Your task to perform on an android device: Search for vegetarian restaurants on Maps Image 0: 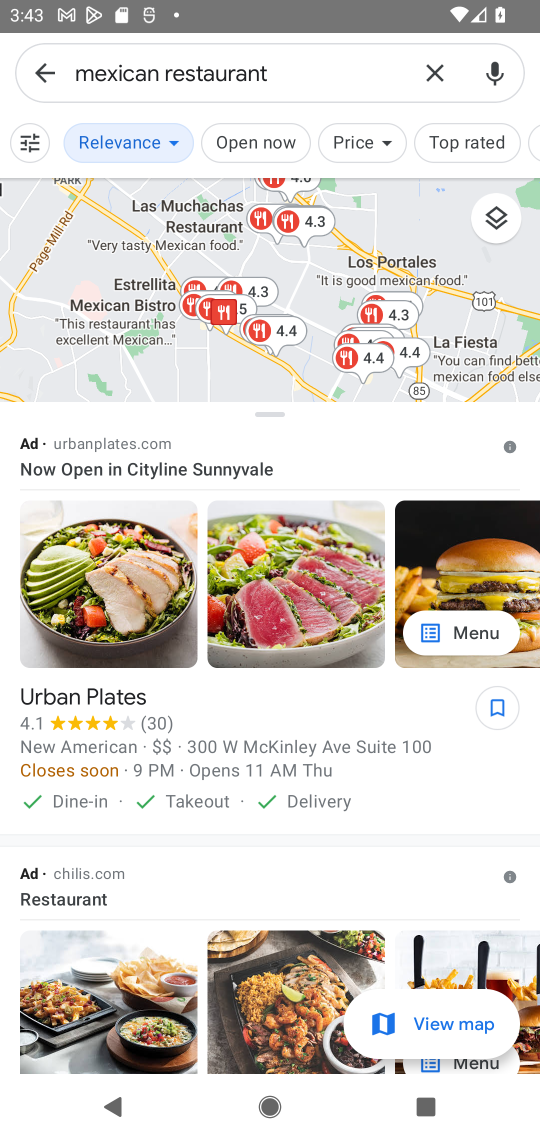
Step 0: click (434, 87)
Your task to perform on an android device: Search for vegetarian restaurants on Maps Image 1: 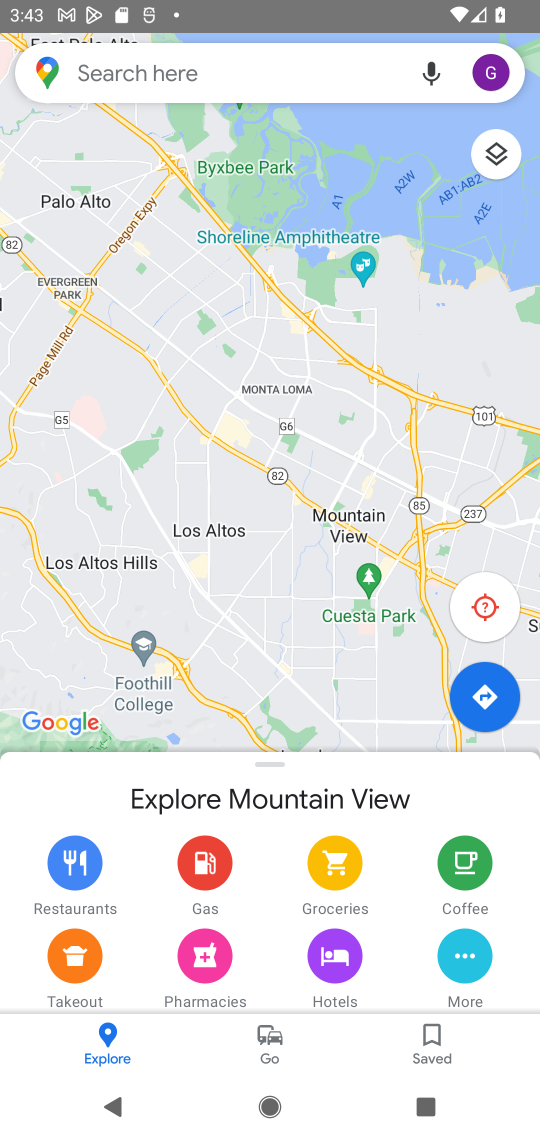
Step 1: click (246, 71)
Your task to perform on an android device: Search for vegetarian restaurants on Maps Image 2: 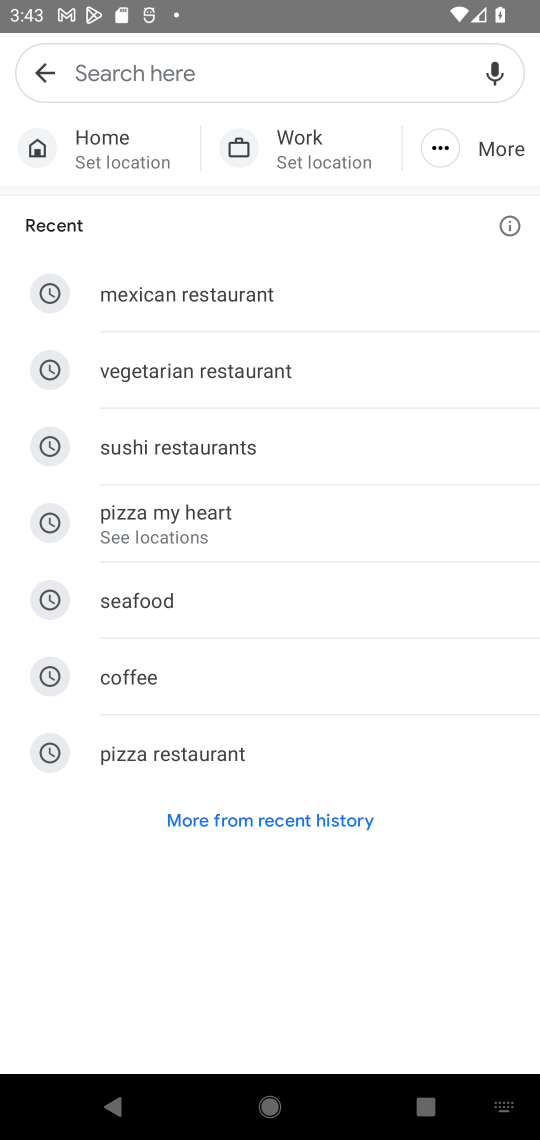
Step 2: click (276, 379)
Your task to perform on an android device: Search for vegetarian restaurants on Maps Image 3: 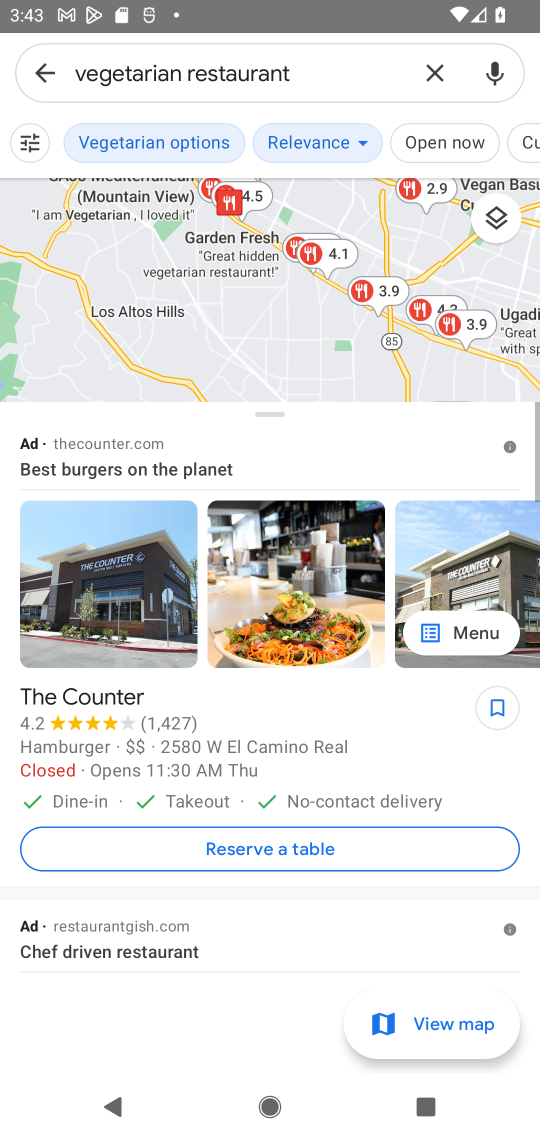
Step 3: task complete